Your task to perform on an android device: empty trash in google photos Image 0: 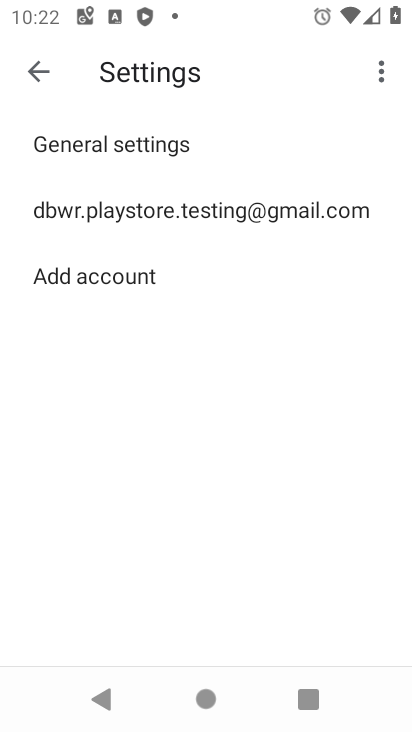
Step 0: click (31, 68)
Your task to perform on an android device: empty trash in google photos Image 1: 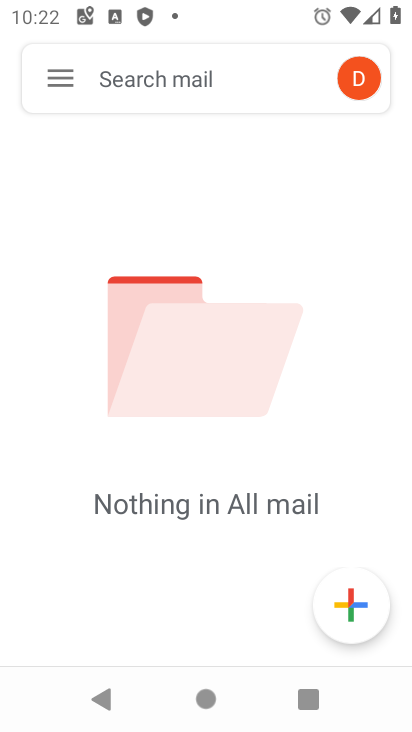
Step 1: press home button
Your task to perform on an android device: empty trash in google photos Image 2: 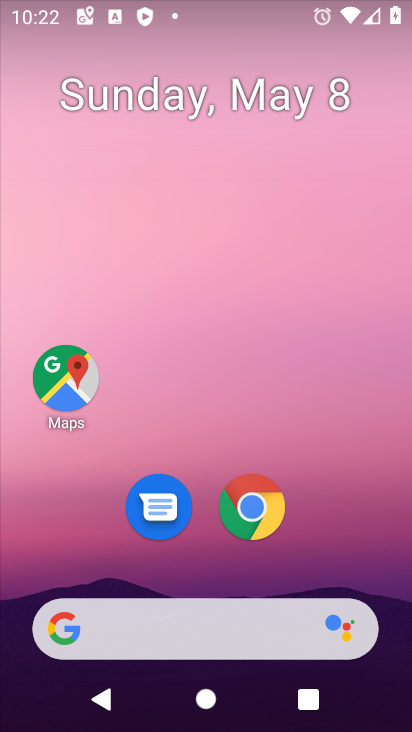
Step 2: drag from (238, 613) to (199, 61)
Your task to perform on an android device: empty trash in google photos Image 3: 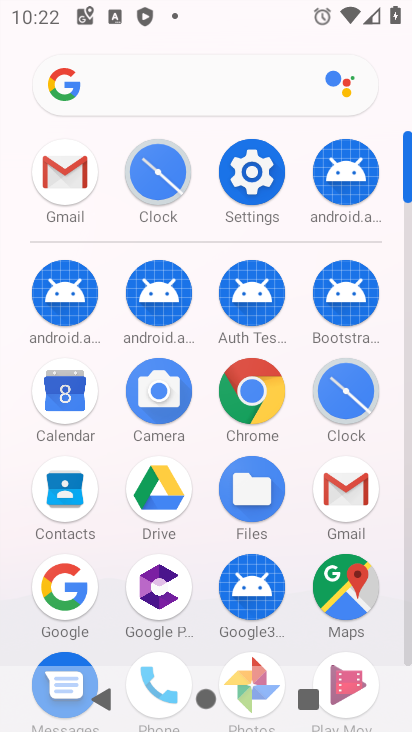
Step 3: click (248, 663)
Your task to perform on an android device: empty trash in google photos Image 4: 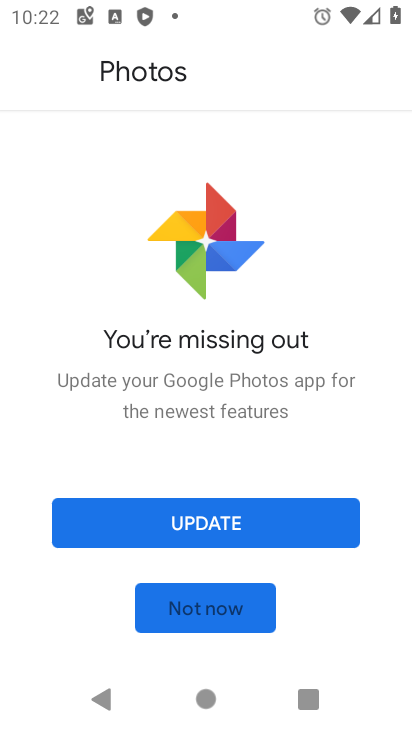
Step 4: click (232, 524)
Your task to perform on an android device: empty trash in google photos Image 5: 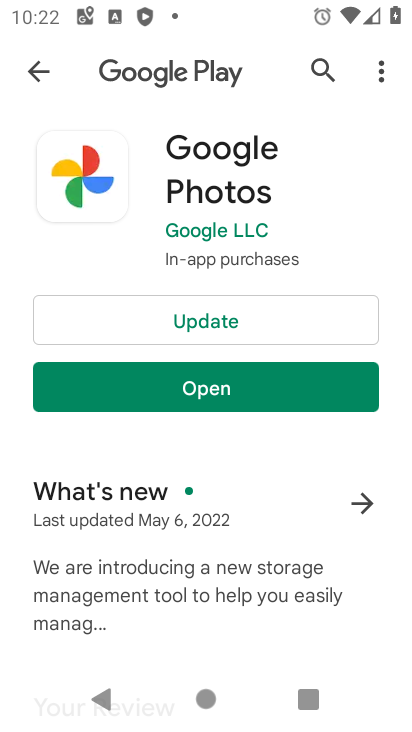
Step 5: click (239, 321)
Your task to perform on an android device: empty trash in google photos Image 6: 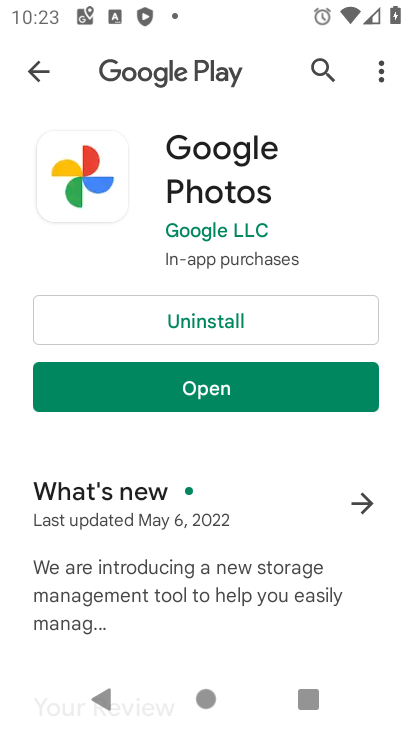
Step 6: click (271, 402)
Your task to perform on an android device: empty trash in google photos Image 7: 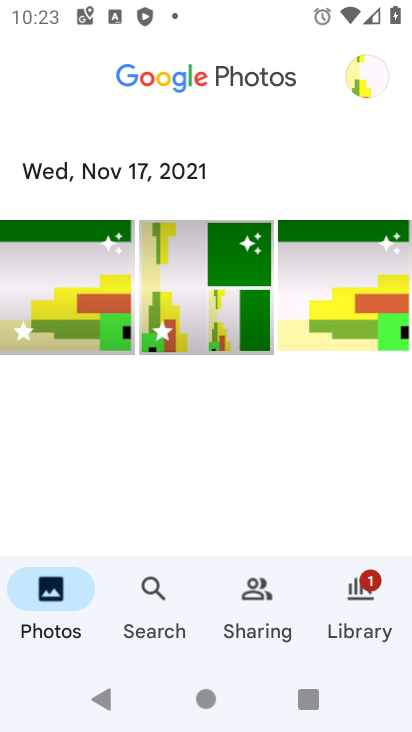
Step 7: click (379, 603)
Your task to perform on an android device: empty trash in google photos Image 8: 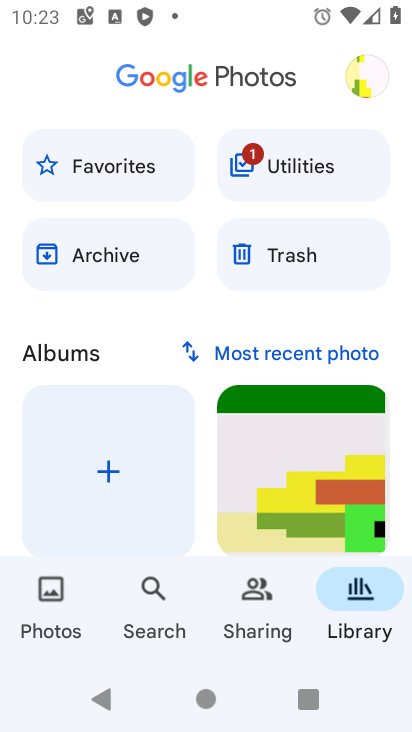
Step 8: click (298, 263)
Your task to perform on an android device: empty trash in google photos Image 9: 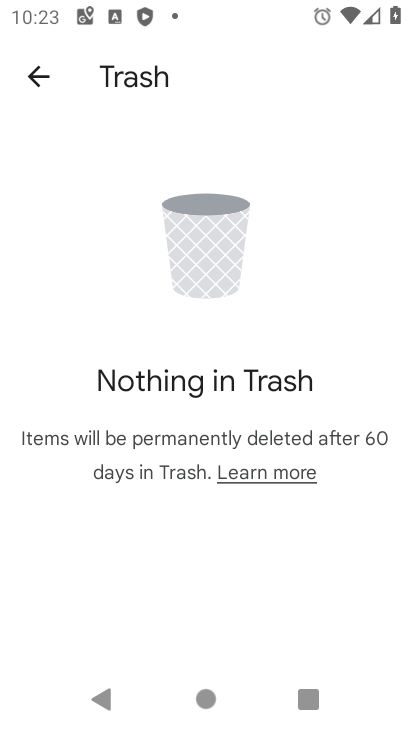
Step 9: task complete